Your task to perform on an android device: Open Youtube and go to the subscriptions tab Image 0: 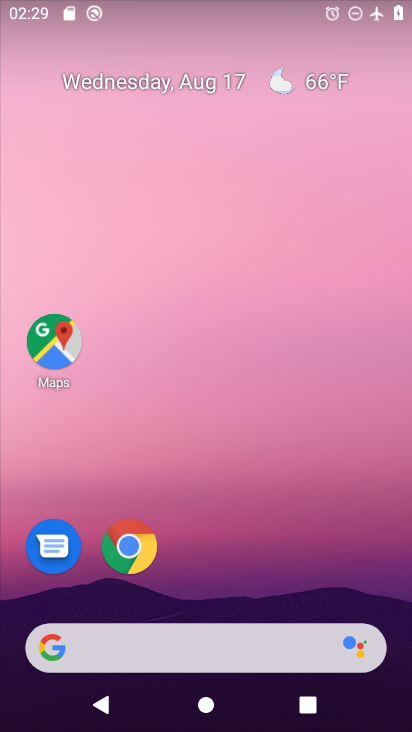
Step 0: drag from (244, 584) to (225, 51)
Your task to perform on an android device: Open Youtube and go to the subscriptions tab Image 1: 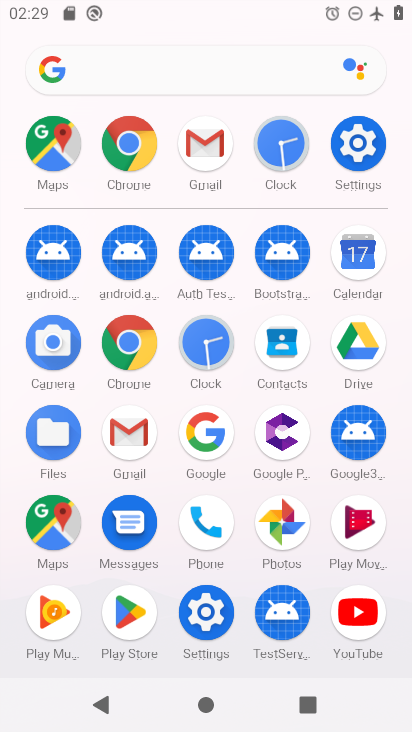
Step 1: click (359, 614)
Your task to perform on an android device: Open Youtube and go to the subscriptions tab Image 2: 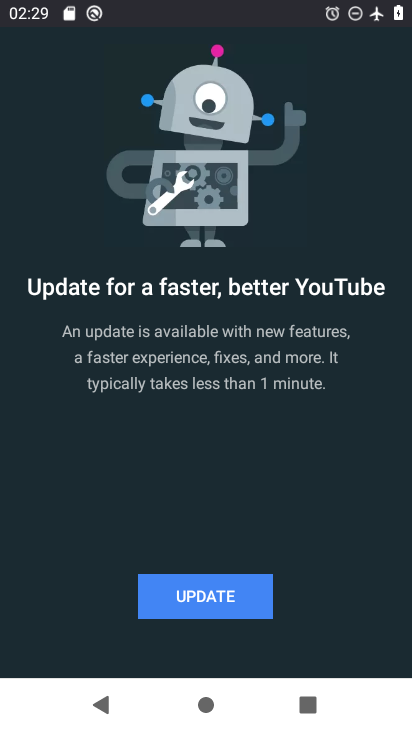
Step 2: click (187, 592)
Your task to perform on an android device: Open Youtube and go to the subscriptions tab Image 3: 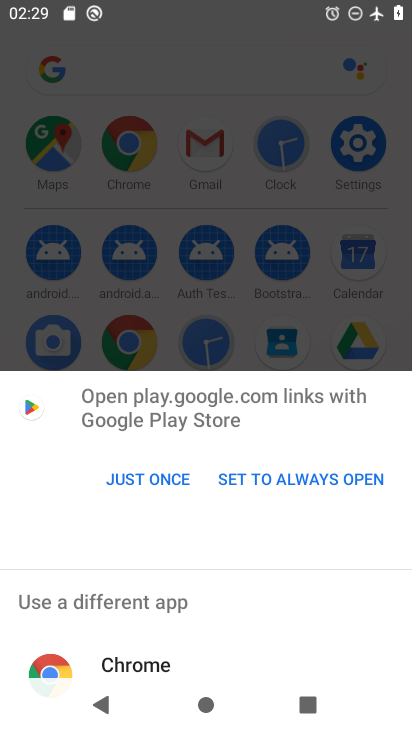
Step 3: click (143, 479)
Your task to perform on an android device: Open Youtube and go to the subscriptions tab Image 4: 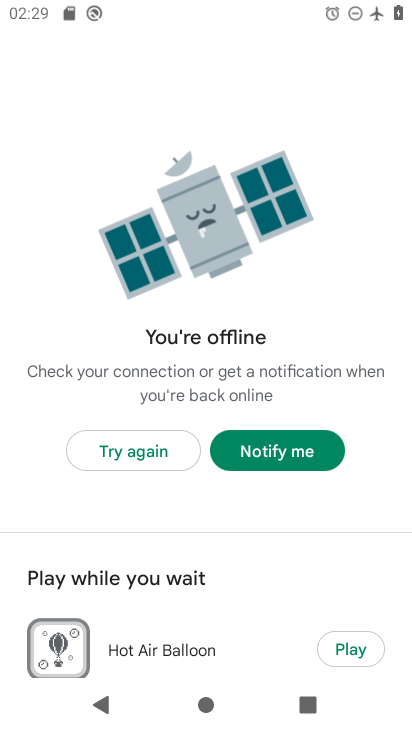
Step 4: task complete